Your task to perform on an android device: Open the web browser Image 0: 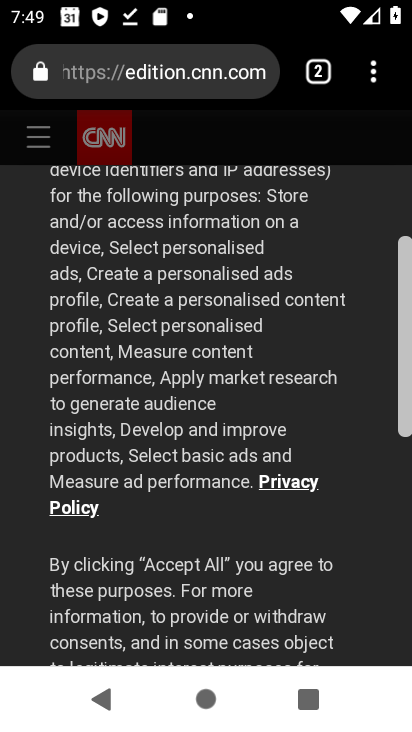
Step 0: press home button
Your task to perform on an android device: Open the web browser Image 1: 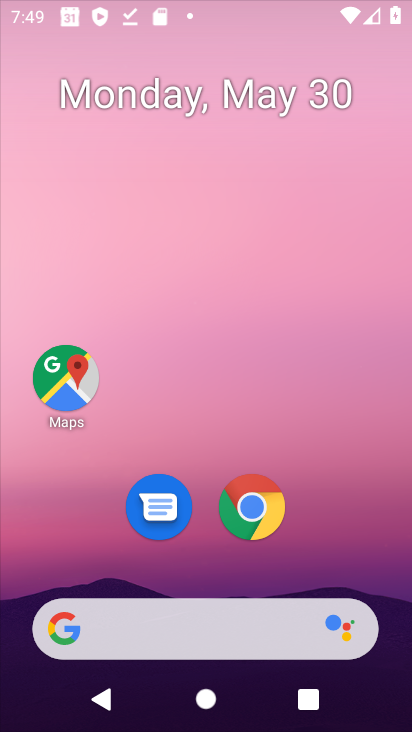
Step 1: drag from (360, 557) to (326, 191)
Your task to perform on an android device: Open the web browser Image 2: 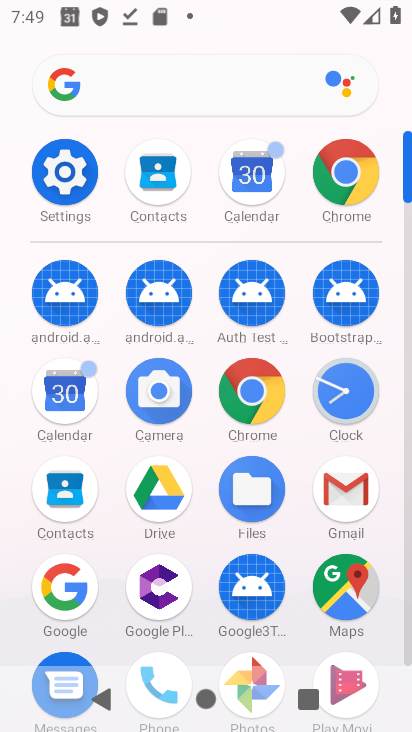
Step 2: click (350, 167)
Your task to perform on an android device: Open the web browser Image 3: 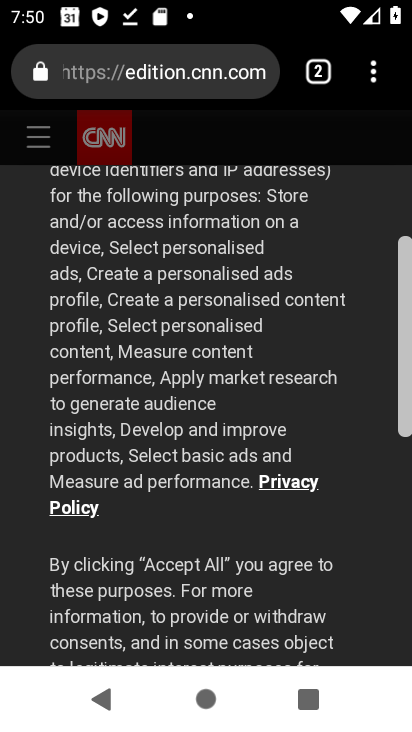
Step 3: task complete